Your task to perform on an android device: open a bookmark in the chrome app Image 0: 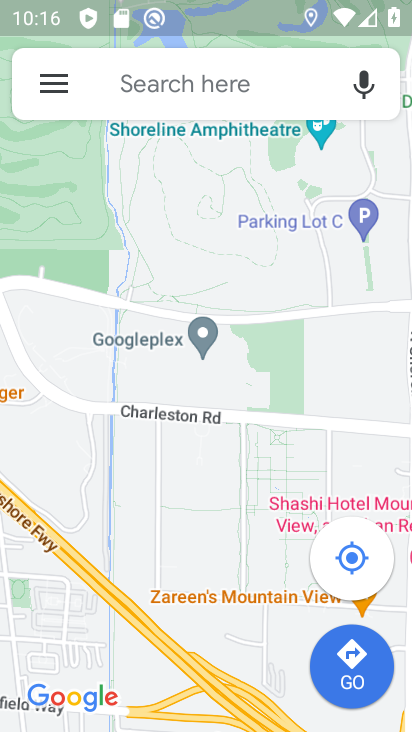
Step 0: press home button
Your task to perform on an android device: open a bookmark in the chrome app Image 1: 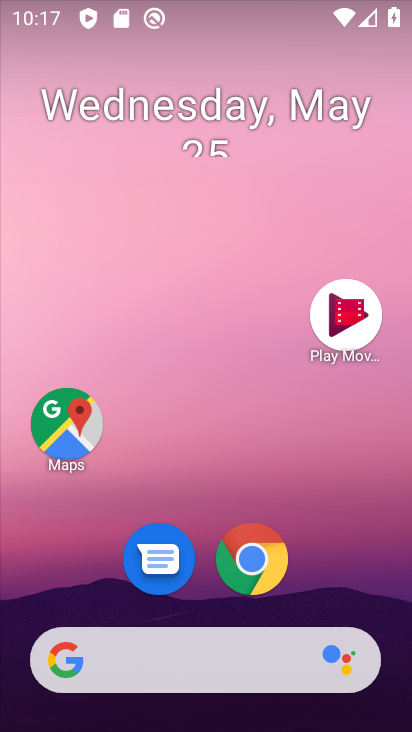
Step 1: click (273, 553)
Your task to perform on an android device: open a bookmark in the chrome app Image 2: 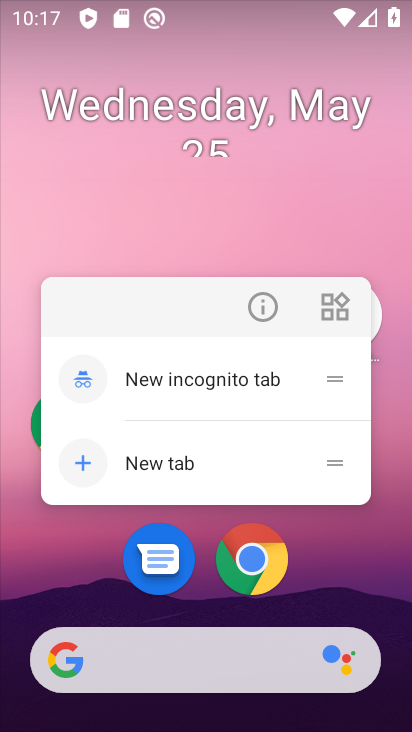
Step 2: click (266, 552)
Your task to perform on an android device: open a bookmark in the chrome app Image 3: 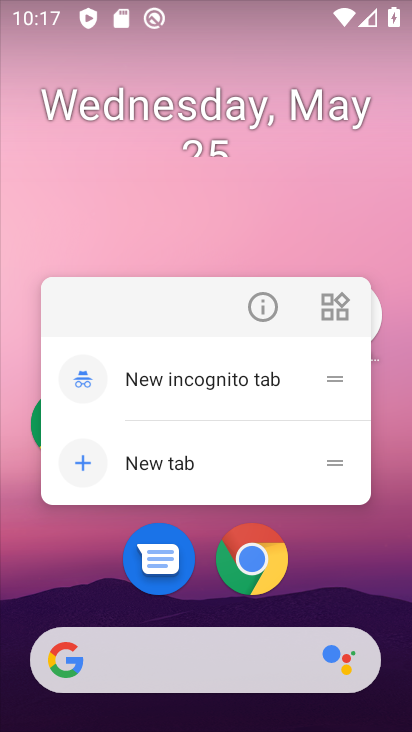
Step 3: click (251, 560)
Your task to perform on an android device: open a bookmark in the chrome app Image 4: 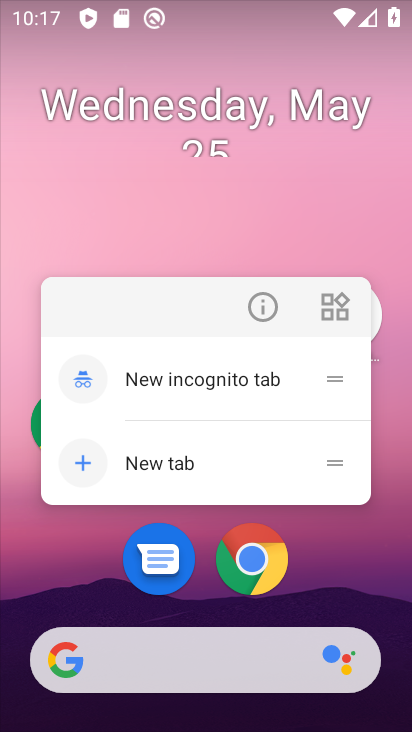
Step 4: click (252, 559)
Your task to perform on an android device: open a bookmark in the chrome app Image 5: 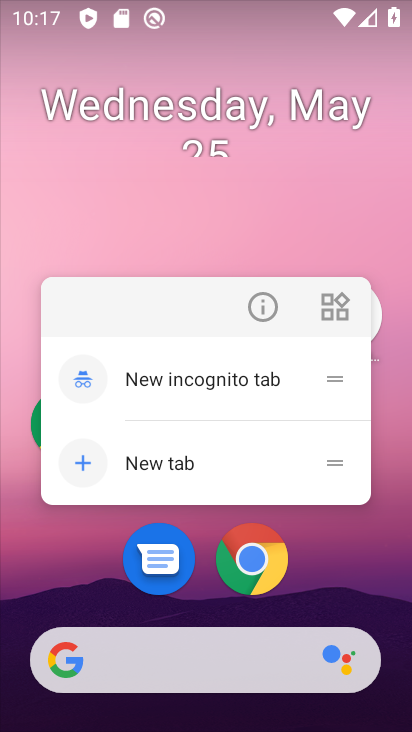
Step 5: click (248, 563)
Your task to perform on an android device: open a bookmark in the chrome app Image 6: 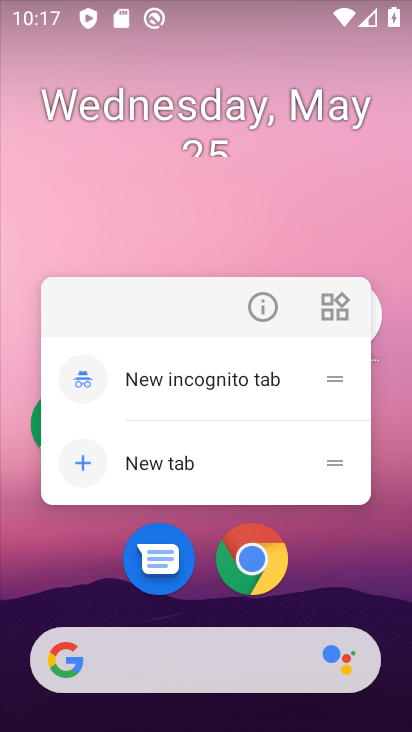
Step 6: click (252, 572)
Your task to perform on an android device: open a bookmark in the chrome app Image 7: 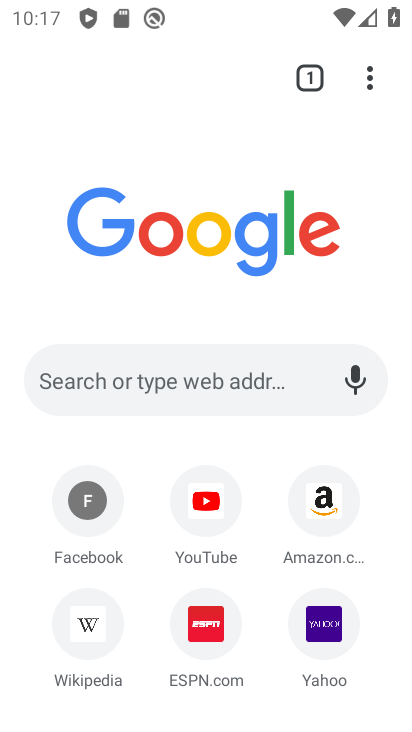
Step 7: click (364, 79)
Your task to perform on an android device: open a bookmark in the chrome app Image 8: 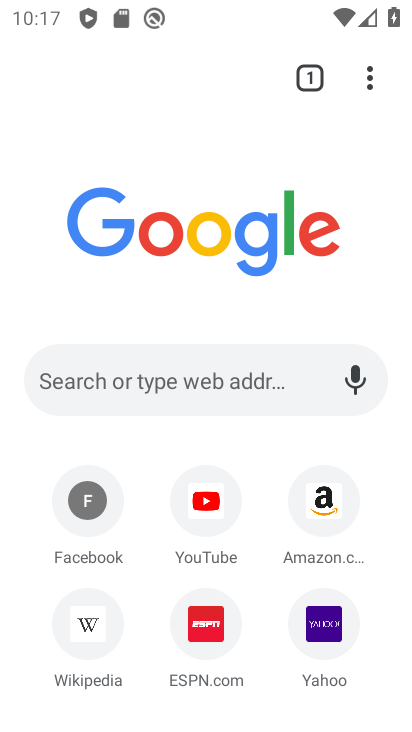
Step 8: click (364, 70)
Your task to perform on an android device: open a bookmark in the chrome app Image 9: 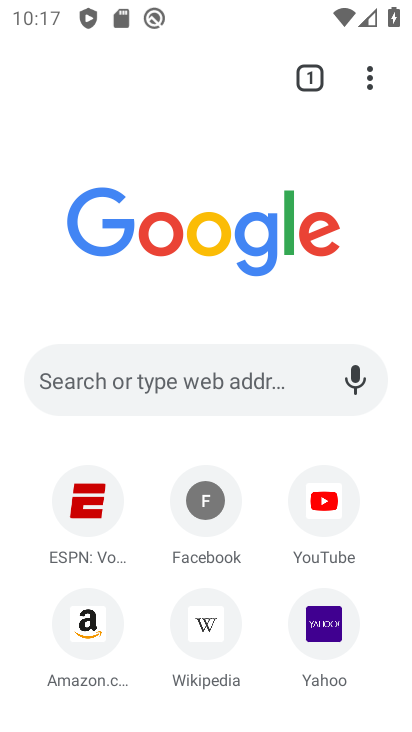
Step 9: task complete